Your task to perform on an android device: toggle pop-ups in chrome Image 0: 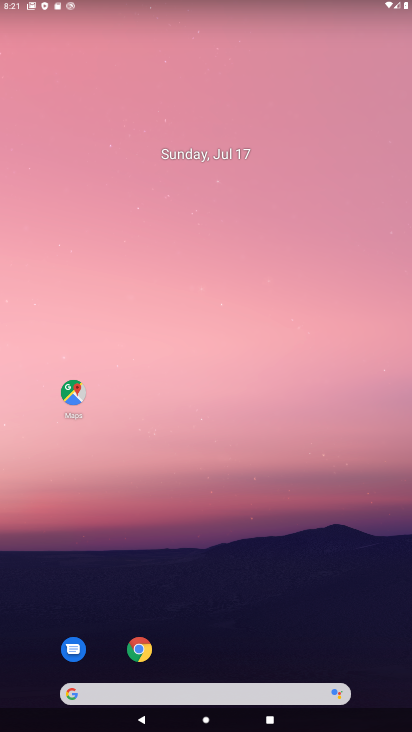
Step 0: click (149, 650)
Your task to perform on an android device: toggle pop-ups in chrome Image 1: 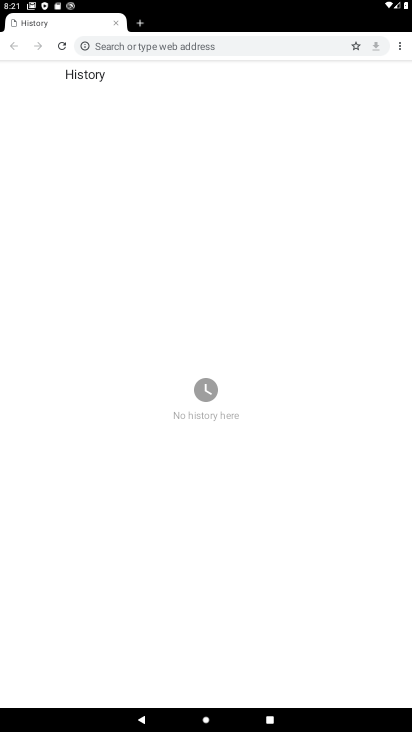
Step 1: click (402, 46)
Your task to perform on an android device: toggle pop-ups in chrome Image 2: 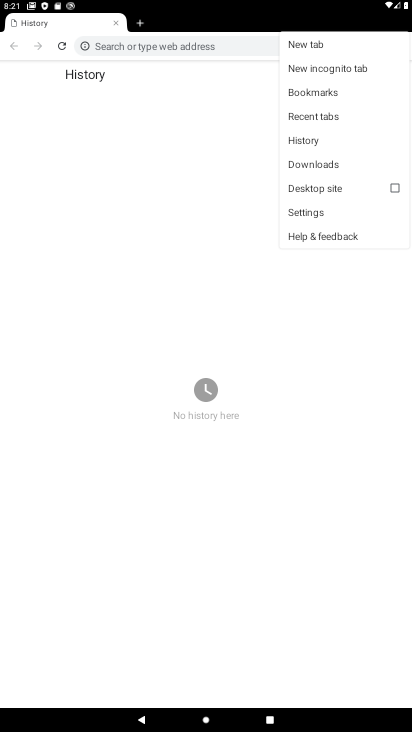
Step 2: click (295, 216)
Your task to perform on an android device: toggle pop-ups in chrome Image 3: 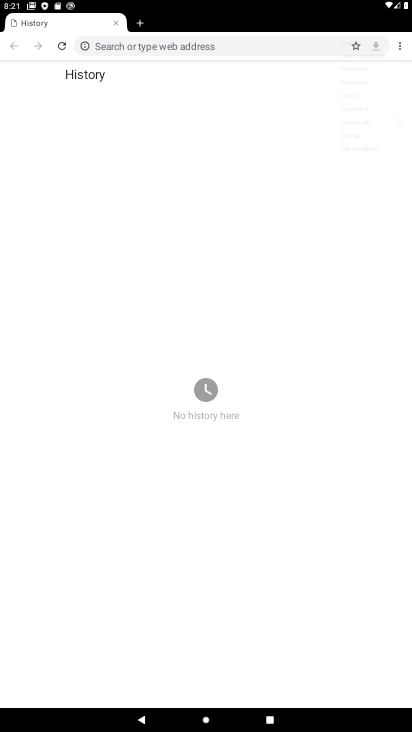
Step 3: click (340, 209)
Your task to perform on an android device: toggle pop-ups in chrome Image 4: 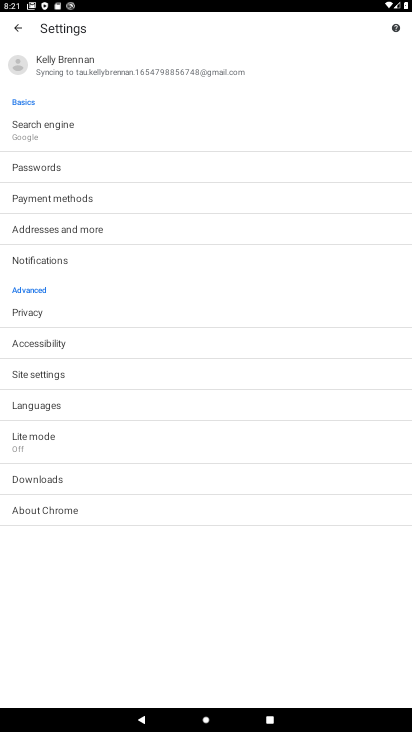
Step 4: click (141, 377)
Your task to perform on an android device: toggle pop-ups in chrome Image 5: 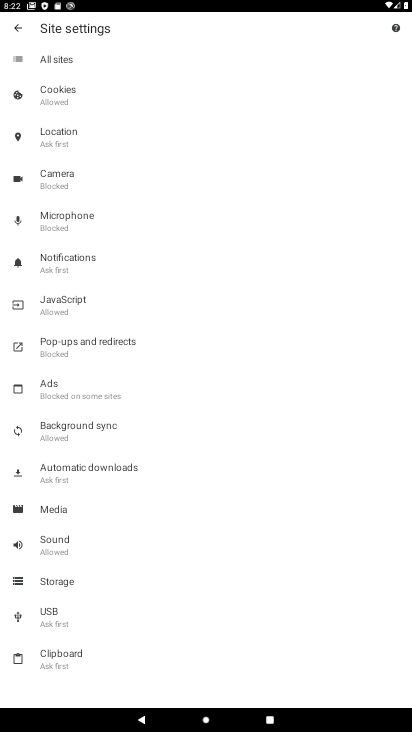
Step 5: click (88, 359)
Your task to perform on an android device: toggle pop-ups in chrome Image 6: 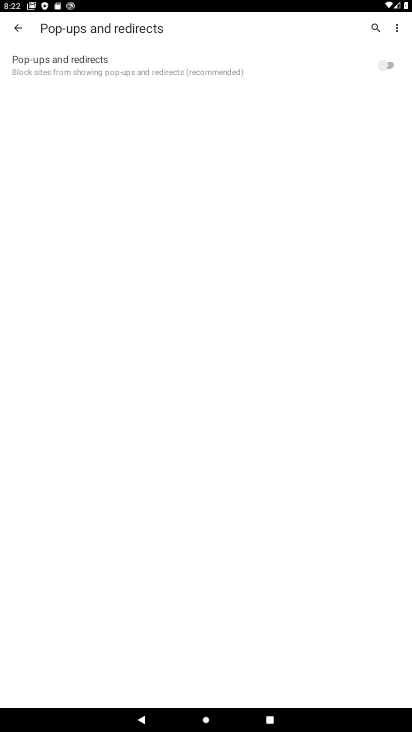
Step 6: click (377, 62)
Your task to perform on an android device: toggle pop-ups in chrome Image 7: 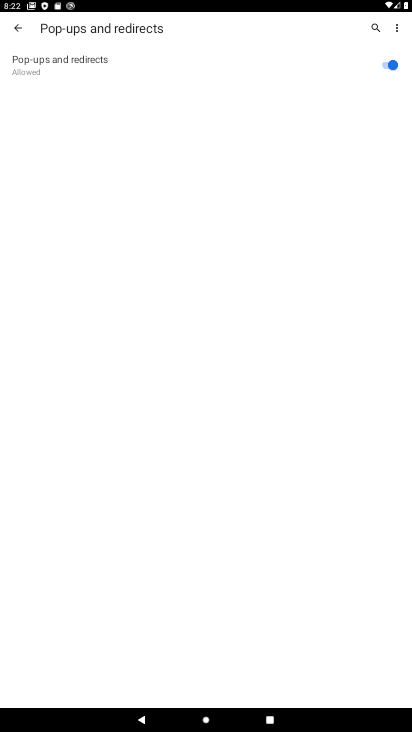
Step 7: click (384, 67)
Your task to perform on an android device: toggle pop-ups in chrome Image 8: 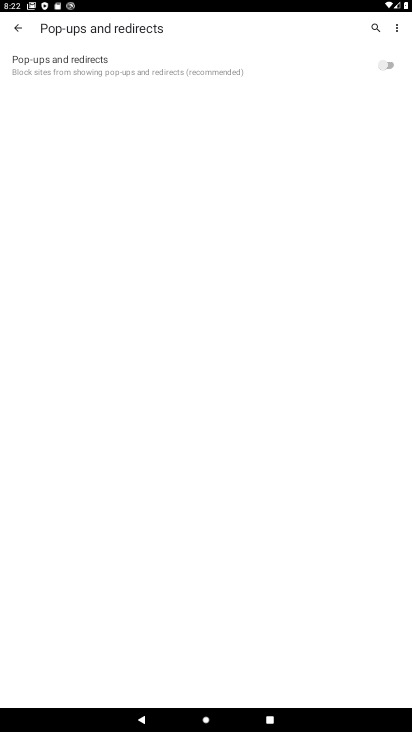
Step 8: task complete